Your task to perform on an android device: turn on location history Image 0: 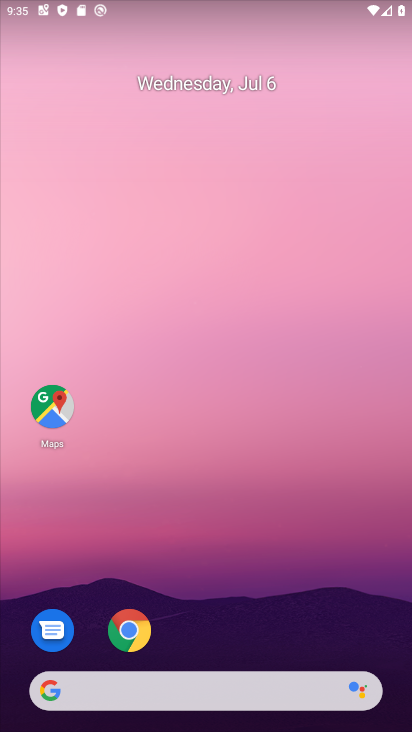
Step 0: click (47, 405)
Your task to perform on an android device: turn on location history Image 1: 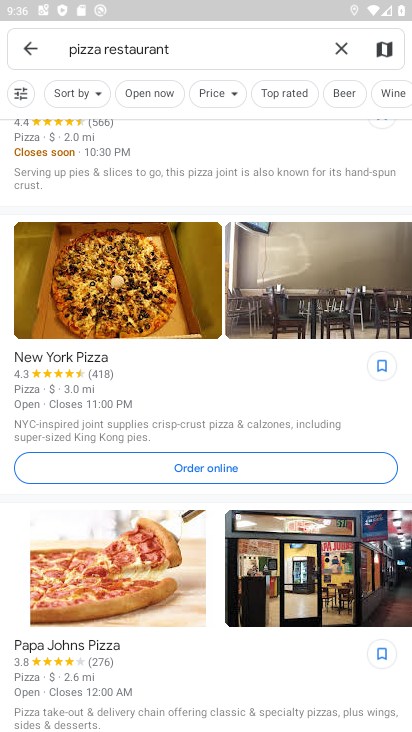
Step 1: click (335, 46)
Your task to perform on an android device: turn on location history Image 2: 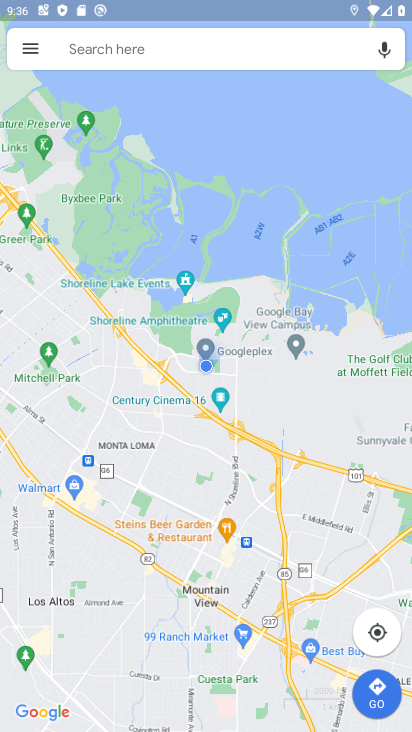
Step 2: click (29, 45)
Your task to perform on an android device: turn on location history Image 3: 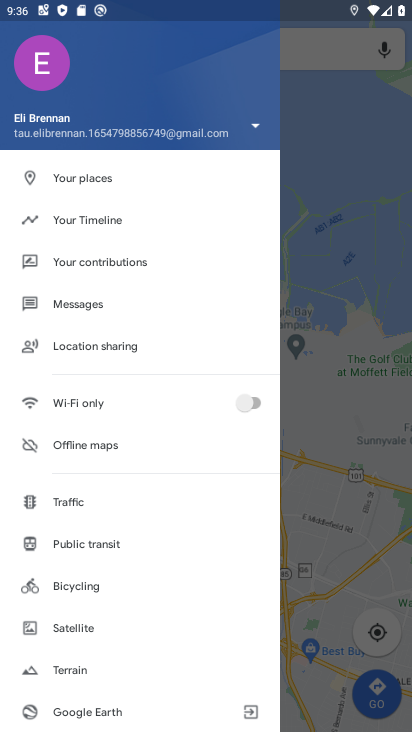
Step 3: drag from (160, 662) to (174, 340)
Your task to perform on an android device: turn on location history Image 4: 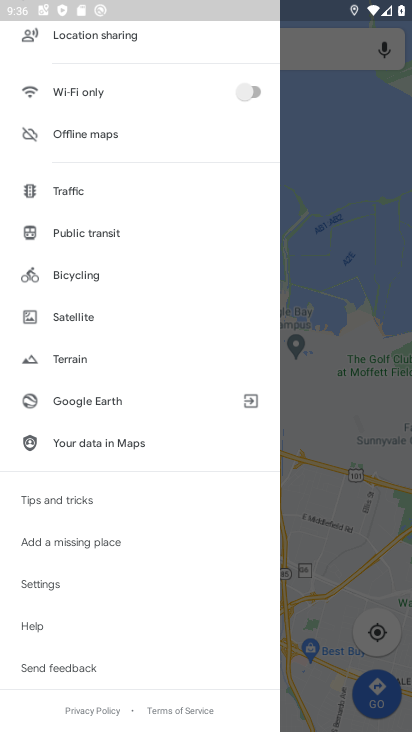
Step 4: click (40, 587)
Your task to perform on an android device: turn on location history Image 5: 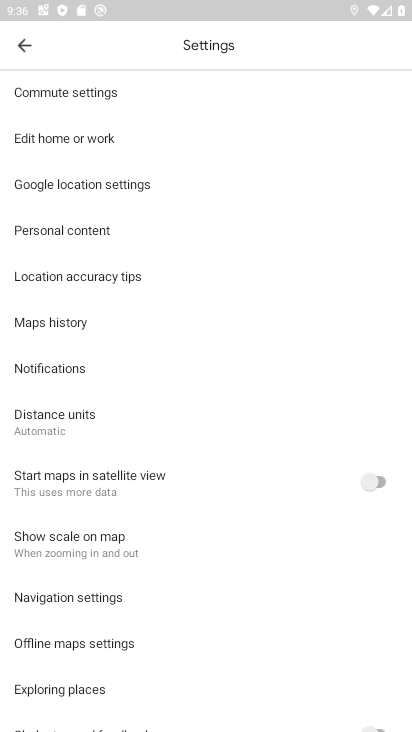
Step 5: click (31, 227)
Your task to perform on an android device: turn on location history Image 6: 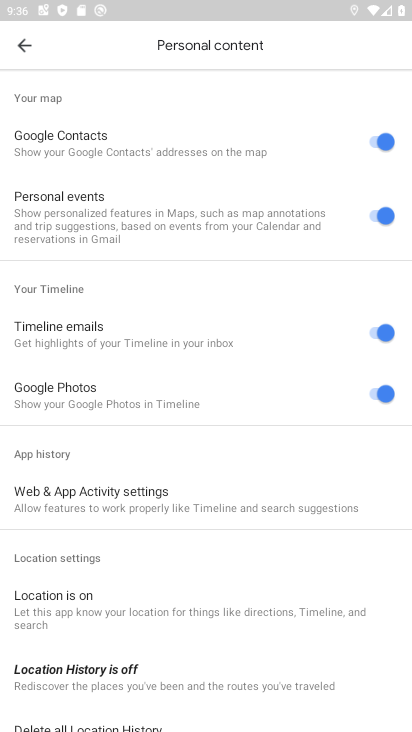
Step 6: drag from (243, 629) to (217, 319)
Your task to perform on an android device: turn on location history Image 7: 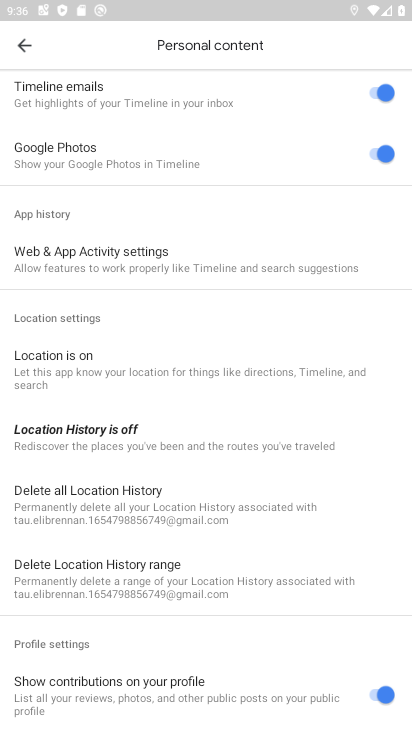
Step 7: click (64, 429)
Your task to perform on an android device: turn on location history Image 8: 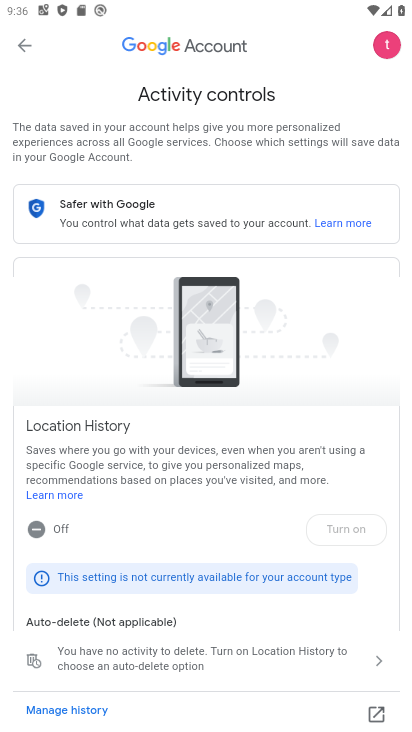
Step 8: drag from (244, 488) to (236, 291)
Your task to perform on an android device: turn on location history Image 9: 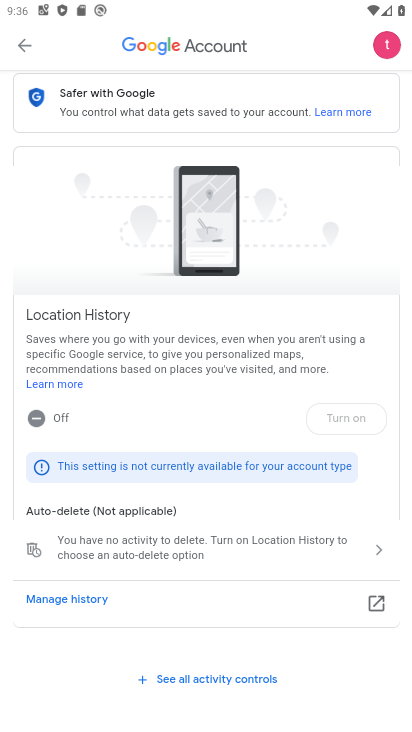
Step 9: click (351, 413)
Your task to perform on an android device: turn on location history Image 10: 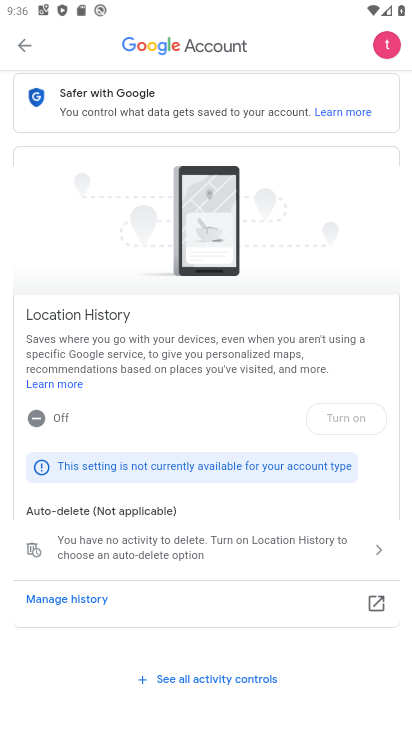
Step 10: click (347, 418)
Your task to perform on an android device: turn on location history Image 11: 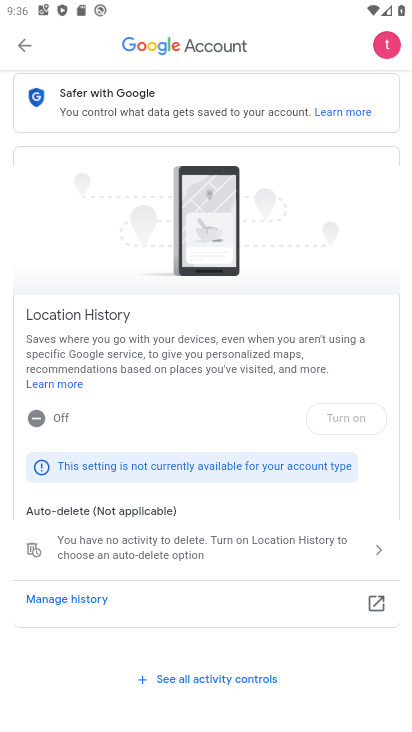
Step 11: click (344, 410)
Your task to perform on an android device: turn on location history Image 12: 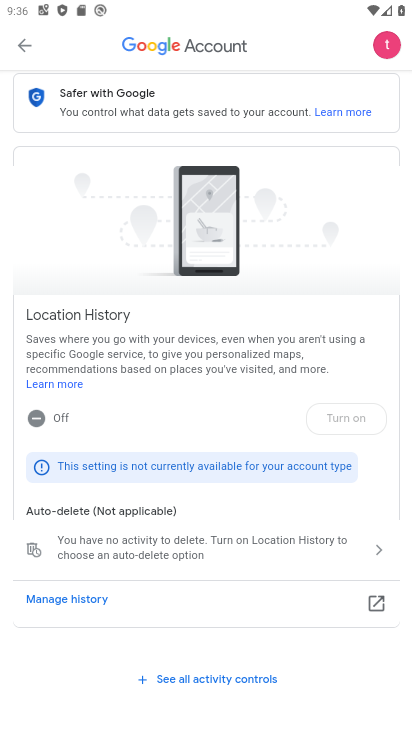
Step 12: task complete